Your task to perform on an android device: turn on javascript in the chrome app Image 0: 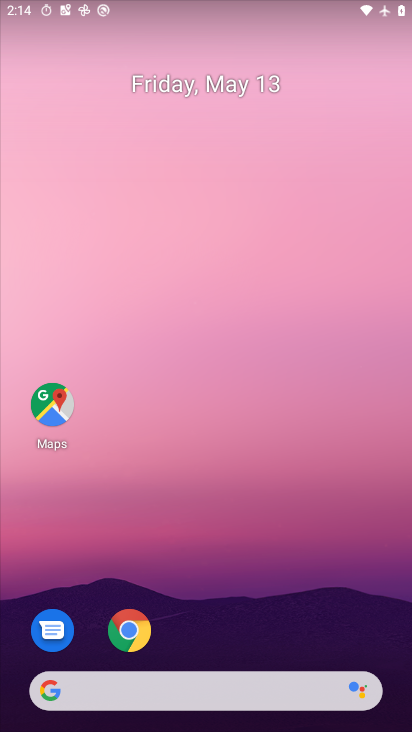
Step 0: drag from (231, 614) to (215, 191)
Your task to perform on an android device: turn on javascript in the chrome app Image 1: 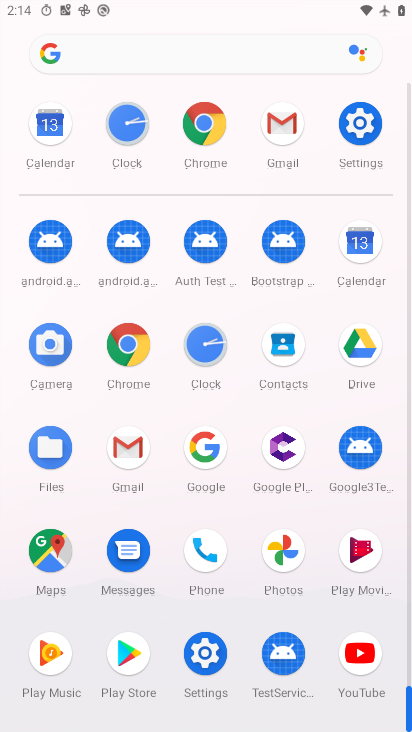
Step 1: click (142, 344)
Your task to perform on an android device: turn on javascript in the chrome app Image 2: 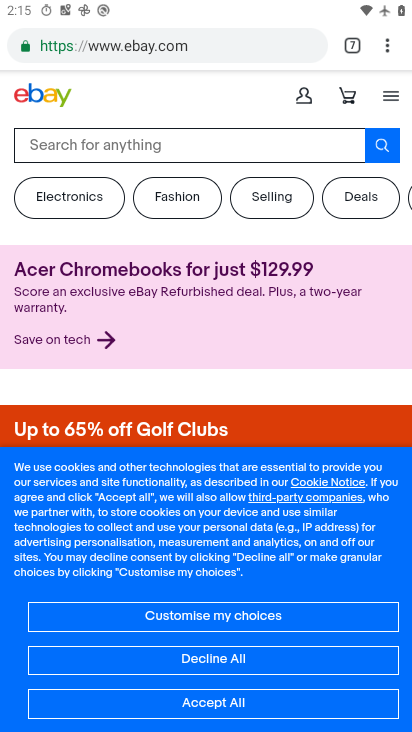
Step 2: click (383, 48)
Your task to perform on an android device: turn on javascript in the chrome app Image 3: 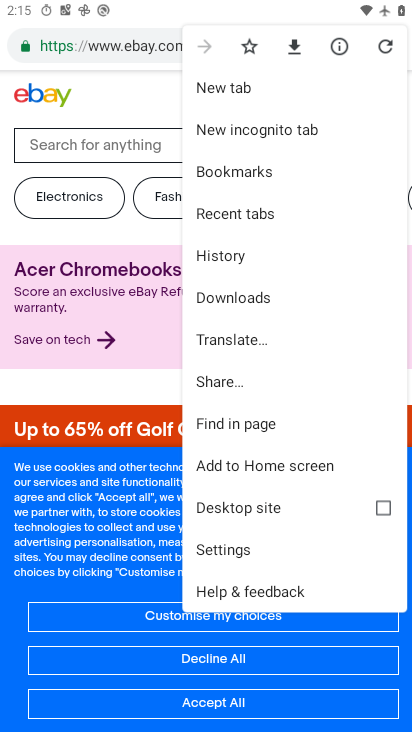
Step 3: click (262, 549)
Your task to perform on an android device: turn on javascript in the chrome app Image 4: 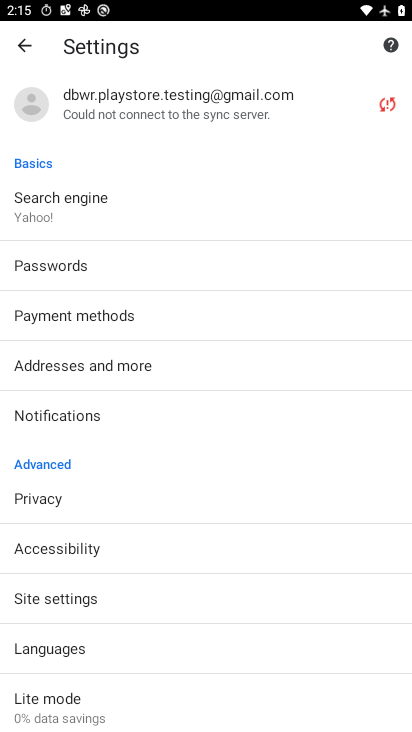
Step 4: click (106, 597)
Your task to perform on an android device: turn on javascript in the chrome app Image 5: 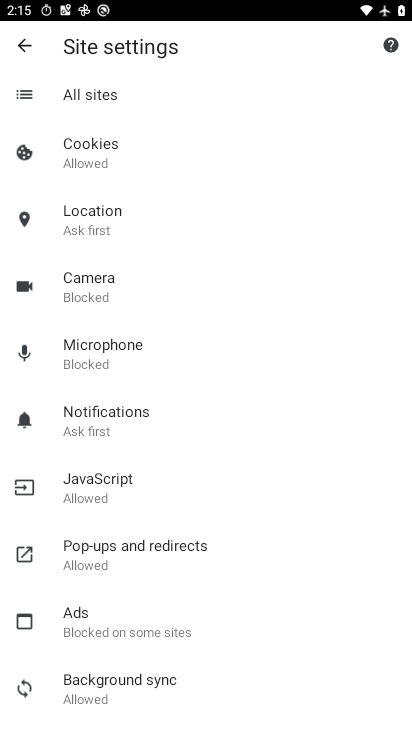
Step 5: click (137, 492)
Your task to perform on an android device: turn on javascript in the chrome app Image 6: 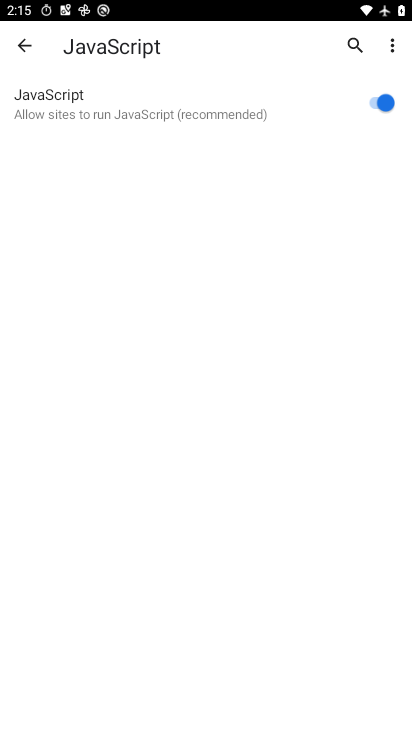
Step 6: task complete